Your task to perform on an android device: toggle javascript in the chrome app Image 0: 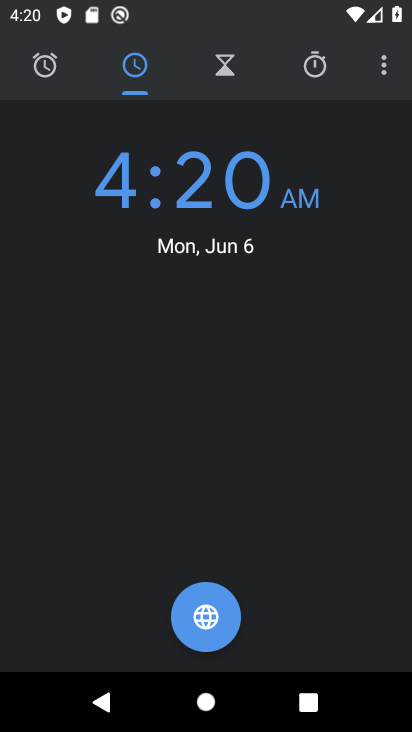
Step 0: press home button
Your task to perform on an android device: toggle javascript in the chrome app Image 1: 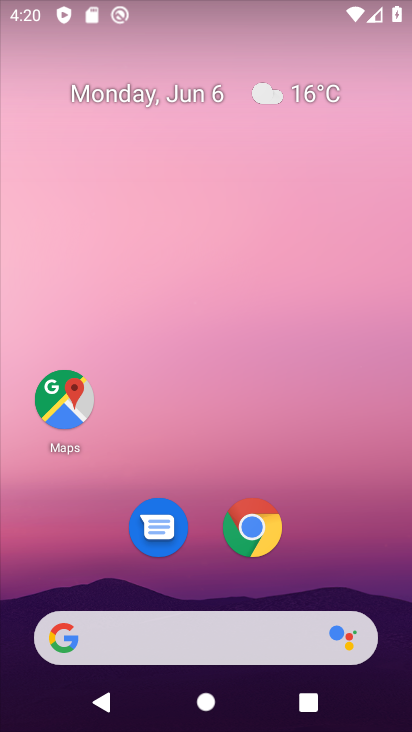
Step 1: click (262, 536)
Your task to perform on an android device: toggle javascript in the chrome app Image 2: 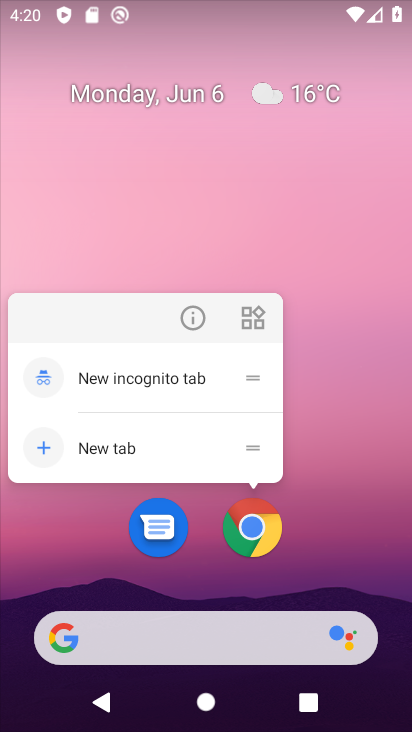
Step 2: click (258, 534)
Your task to perform on an android device: toggle javascript in the chrome app Image 3: 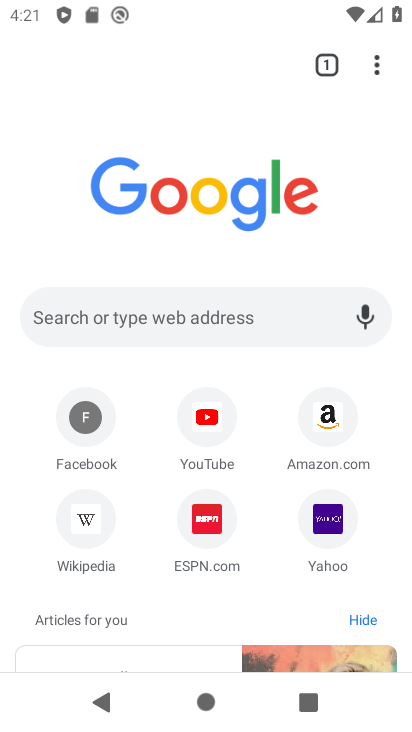
Step 3: click (377, 67)
Your task to perform on an android device: toggle javascript in the chrome app Image 4: 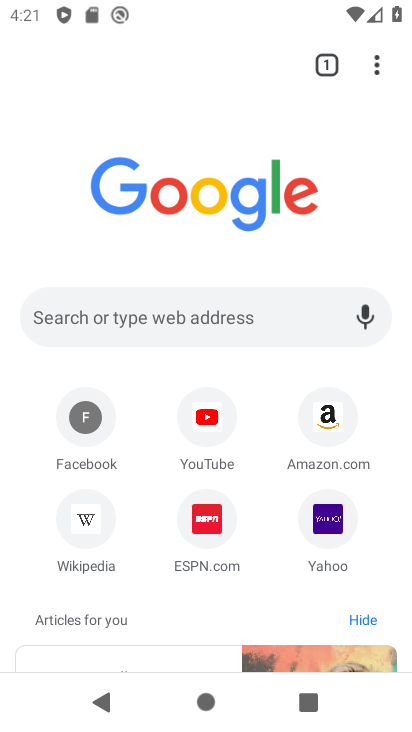
Step 4: click (367, 75)
Your task to perform on an android device: toggle javascript in the chrome app Image 5: 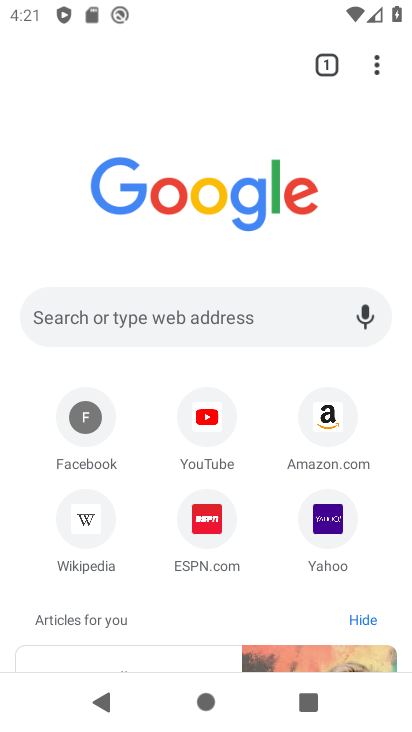
Step 5: click (375, 69)
Your task to perform on an android device: toggle javascript in the chrome app Image 6: 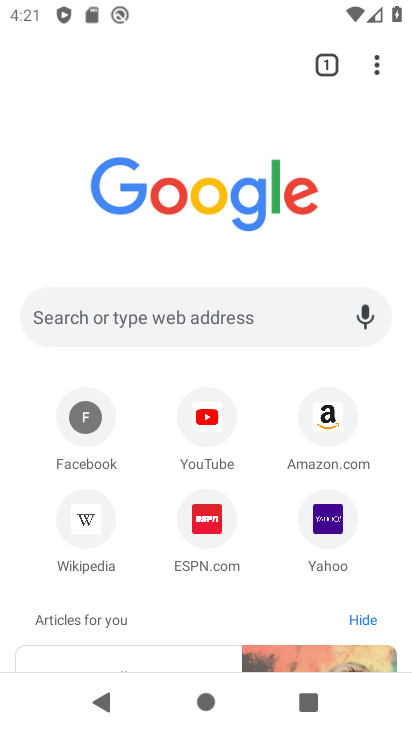
Step 6: click (375, 69)
Your task to perform on an android device: toggle javascript in the chrome app Image 7: 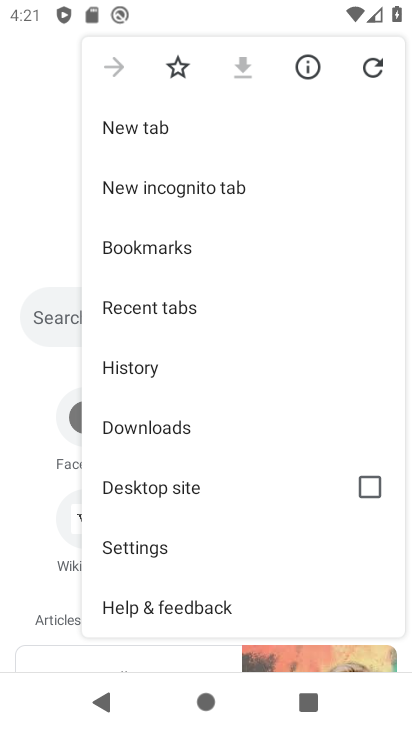
Step 7: click (132, 542)
Your task to perform on an android device: toggle javascript in the chrome app Image 8: 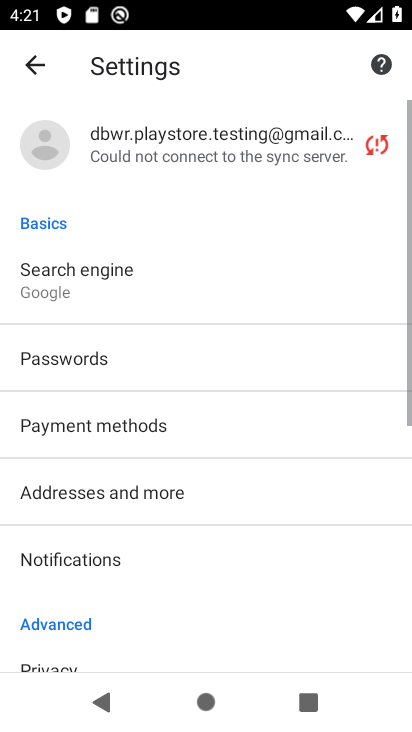
Step 8: drag from (158, 610) to (99, 214)
Your task to perform on an android device: toggle javascript in the chrome app Image 9: 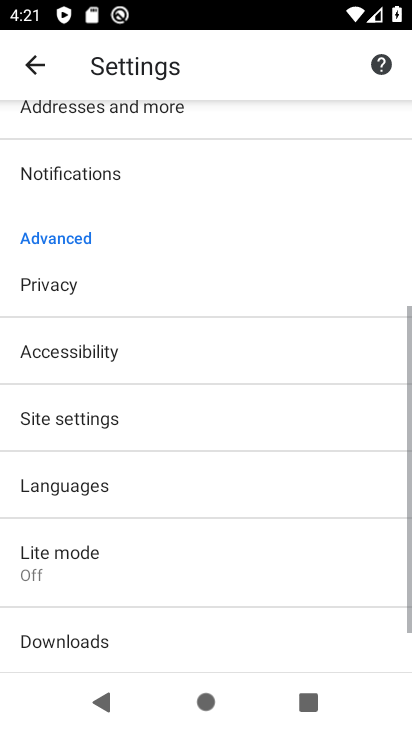
Step 9: click (75, 425)
Your task to perform on an android device: toggle javascript in the chrome app Image 10: 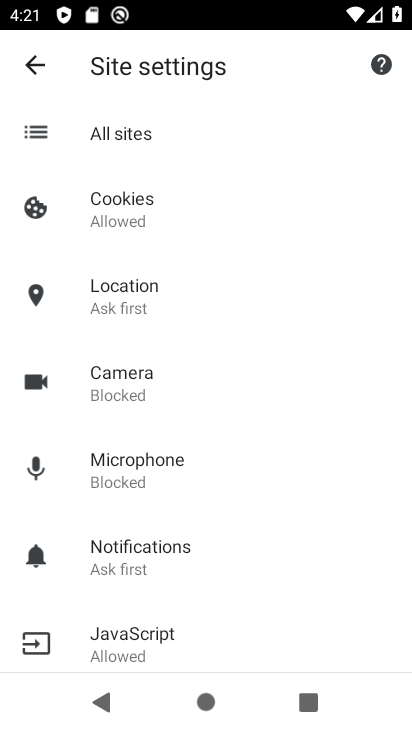
Step 10: click (159, 641)
Your task to perform on an android device: toggle javascript in the chrome app Image 11: 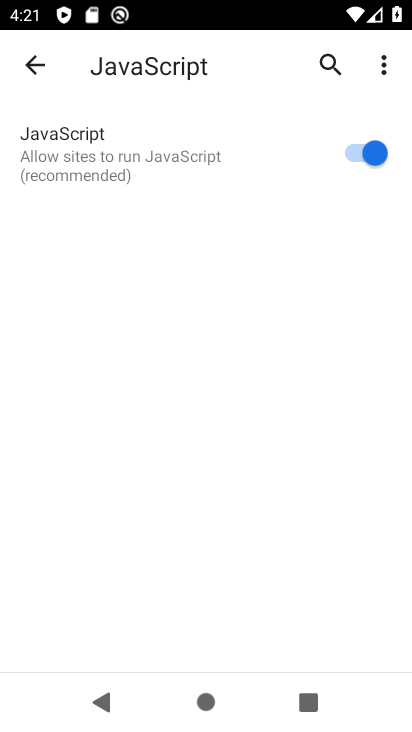
Step 11: click (362, 153)
Your task to perform on an android device: toggle javascript in the chrome app Image 12: 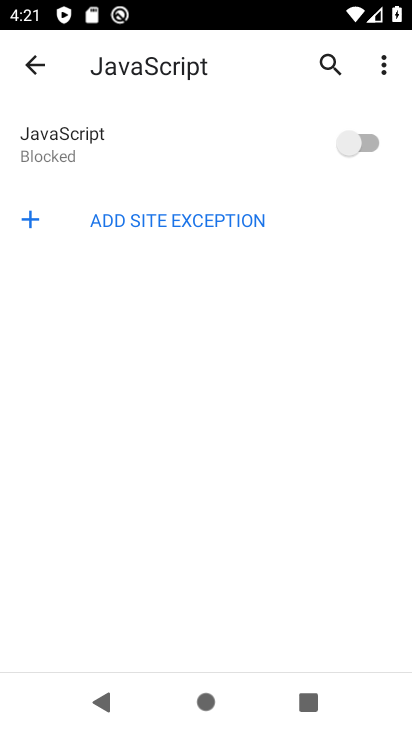
Step 12: task complete